Your task to perform on an android device: change the clock display to digital Image 0: 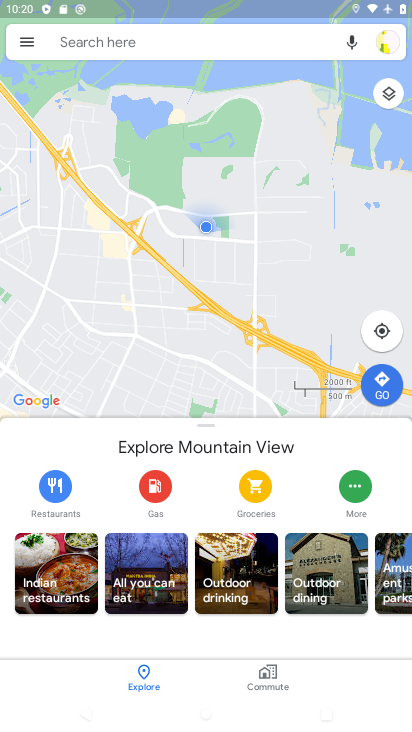
Step 0: press home button
Your task to perform on an android device: change the clock display to digital Image 1: 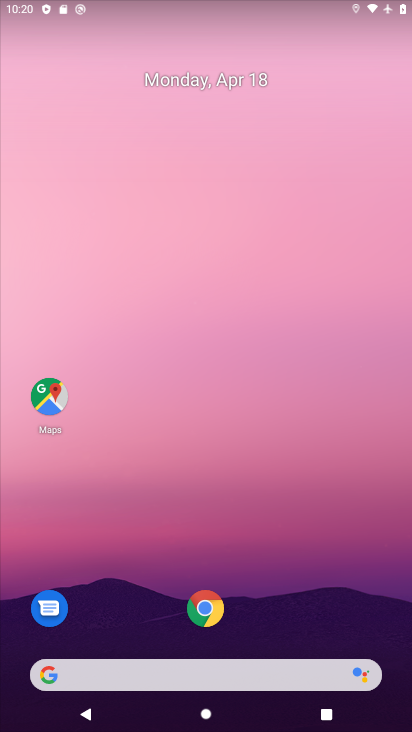
Step 1: drag from (291, 585) to (257, 164)
Your task to perform on an android device: change the clock display to digital Image 2: 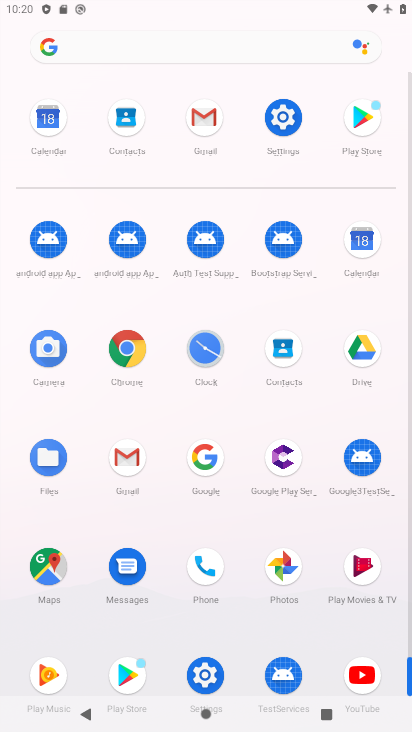
Step 2: click (197, 349)
Your task to perform on an android device: change the clock display to digital Image 3: 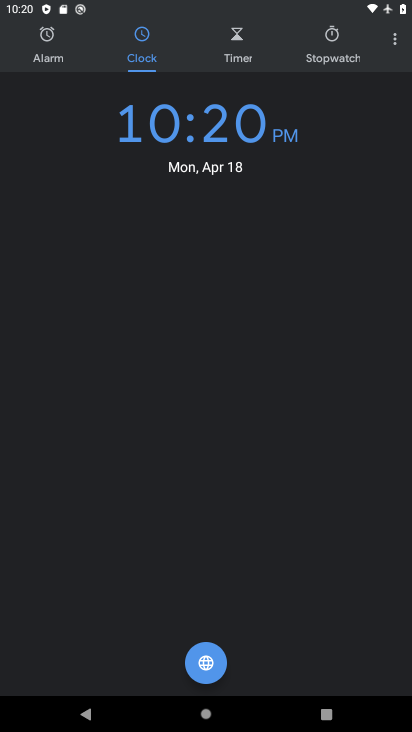
Step 3: click (391, 40)
Your task to perform on an android device: change the clock display to digital Image 4: 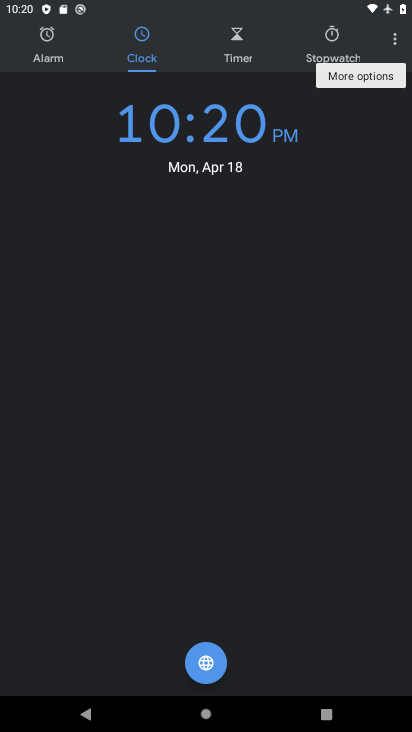
Step 4: click (400, 37)
Your task to perform on an android device: change the clock display to digital Image 5: 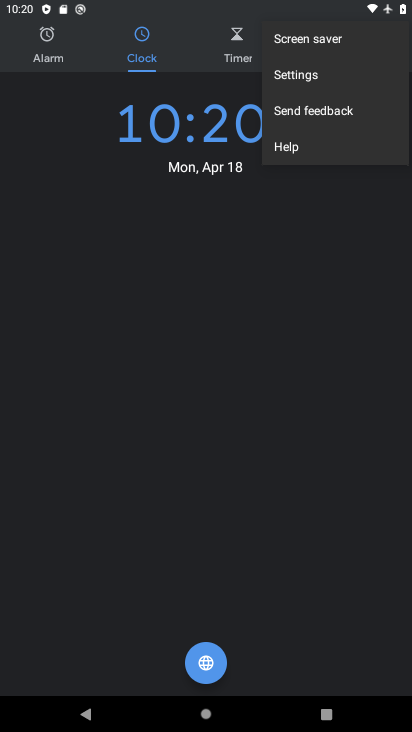
Step 5: click (303, 71)
Your task to perform on an android device: change the clock display to digital Image 6: 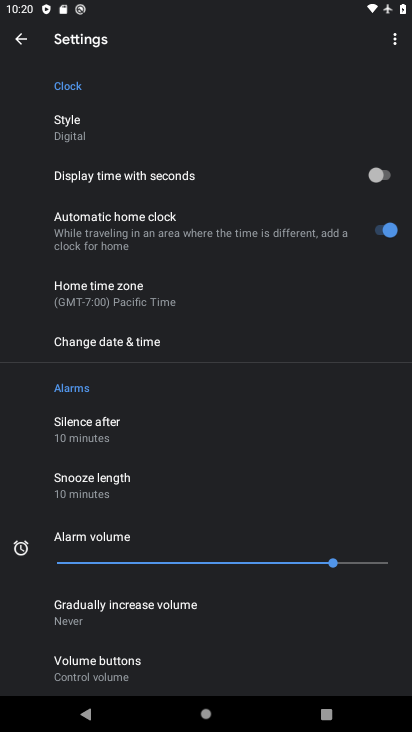
Step 6: task complete